Your task to perform on an android device: see tabs open on other devices in the chrome app Image 0: 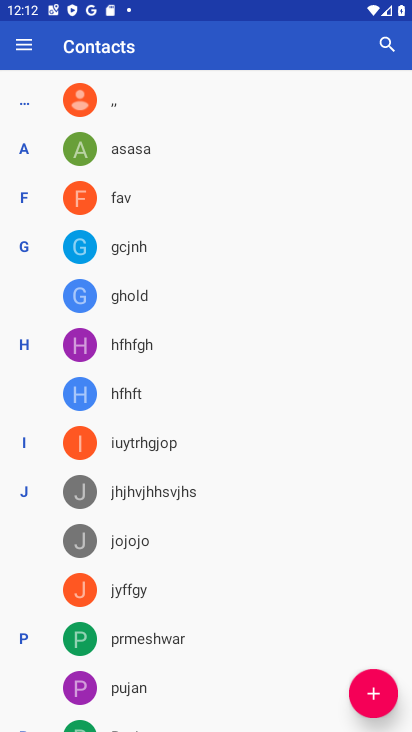
Step 0: press home button
Your task to perform on an android device: see tabs open on other devices in the chrome app Image 1: 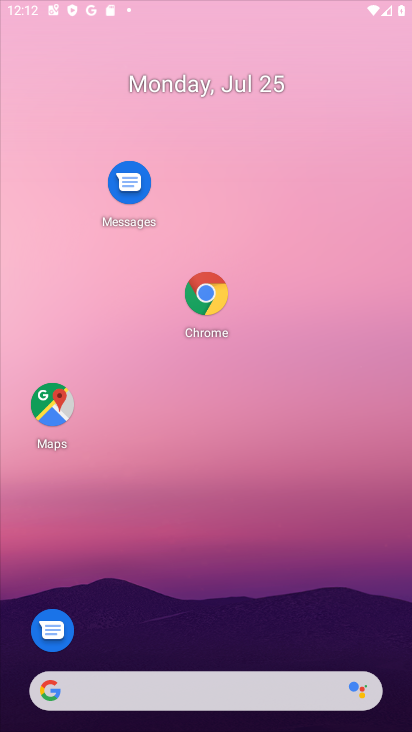
Step 1: drag from (353, 655) to (278, 324)
Your task to perform on an android device: see tabs open on other devices in the chrome app Image 2: 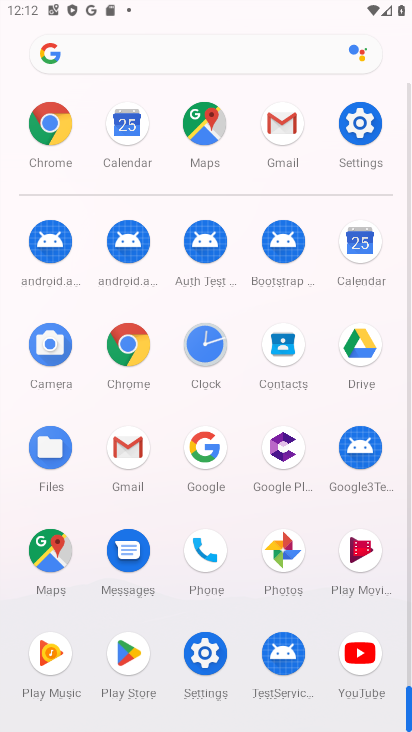
Step 2: click (120, 328)
Your task to perform on an android device: see tabs open on other devices in the chrome app Image 3: 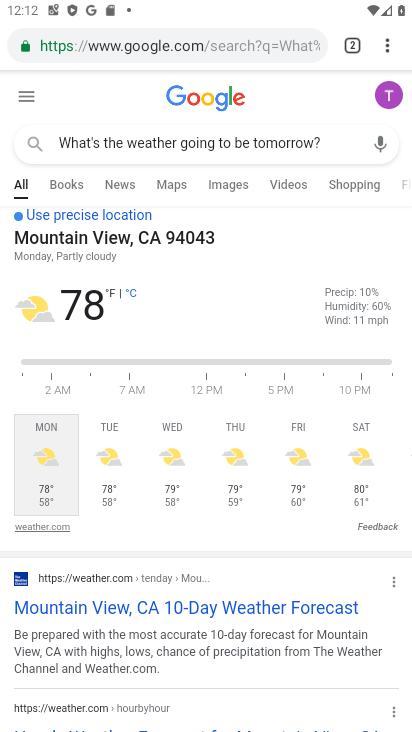
Step 3: drag from (393, 49) to (223, 565)
Your task to perform on an android device: see tabs open on other devices in the chrome app Image 4: 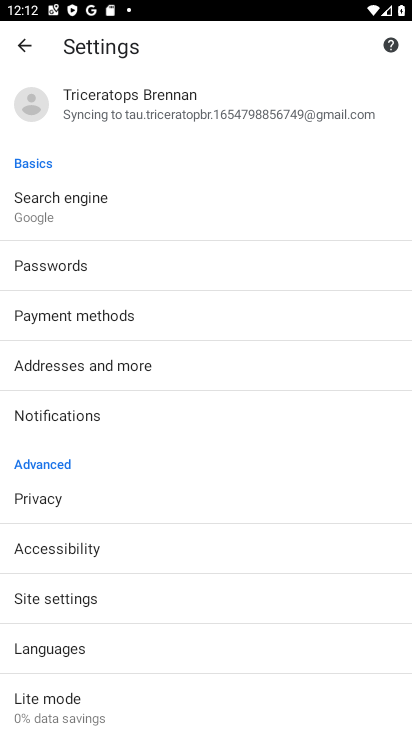
Step 4: click (13, 34)
Your task to perform on an android device: see tabs open on other devices in the chrome app Image 5: 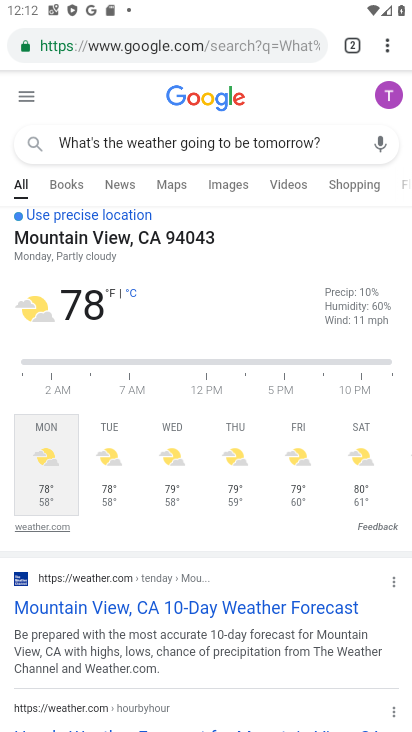
Step 5: task complete